Your task to perform on an android device: turn on the 24-hour format for clock Image 0: 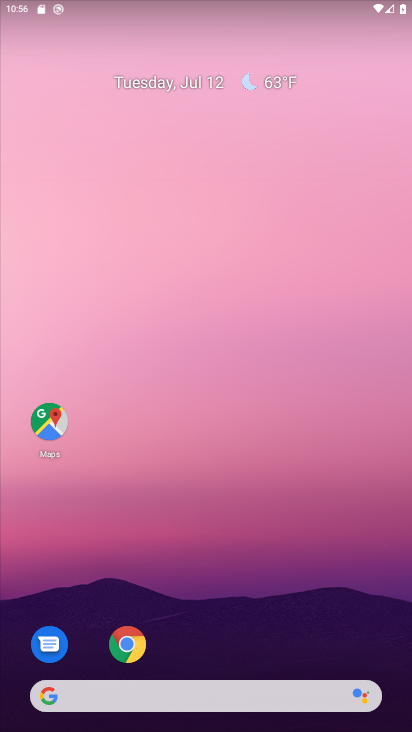
Step 0: drag from (262, 640) to (127, 82)
Your task to perform on an android device: turn on the 24-hour format for clock Image 1: 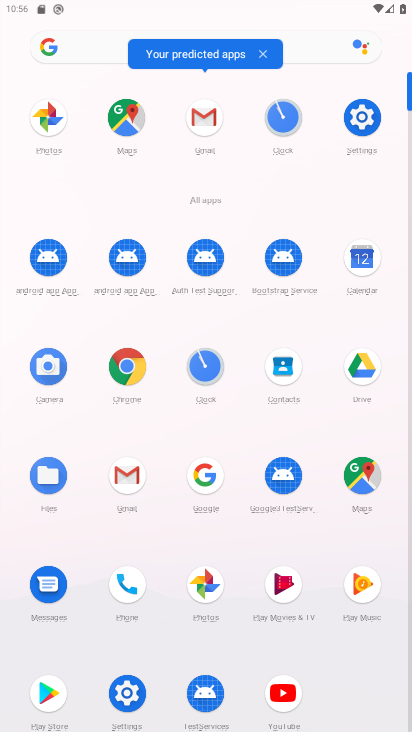
Step 1: click (290, 116)
Your task to perform on an android device: turn on the 24-hour format for clock Image 2: 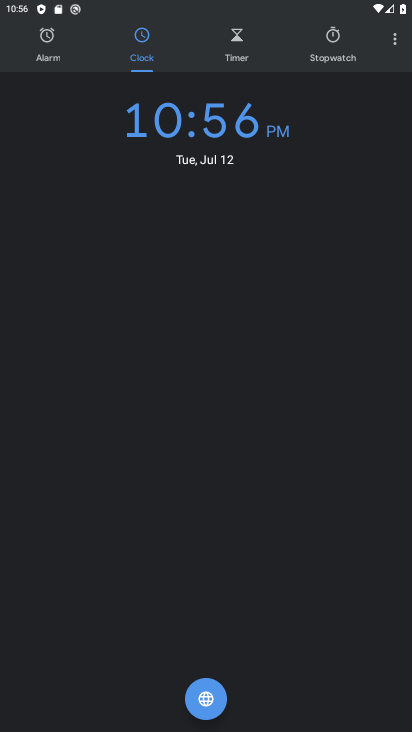
Step 2: click (390, 45)
Your task to perform on an android device: turn on the 24-hour format for clock Image 3: 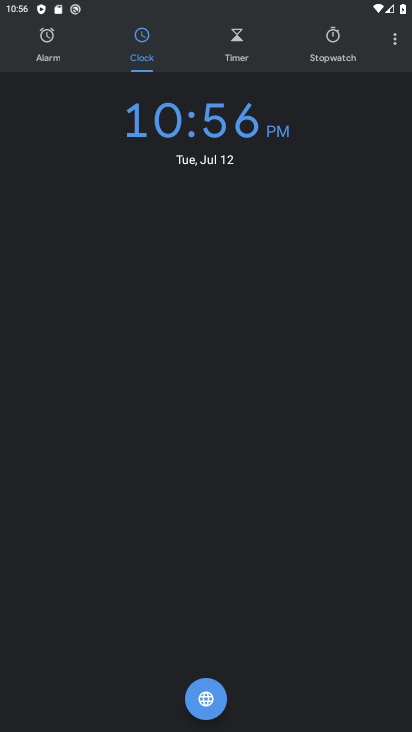
Step 3: click (397, 44)
Your task to perform on an android device: turn on the 24-hour format for clock Image 4: 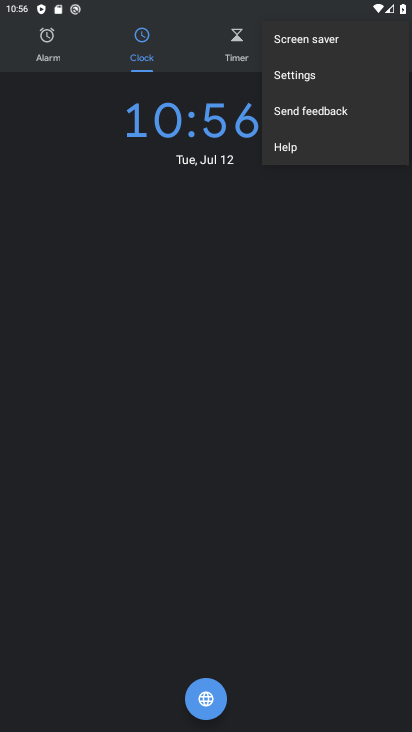
Step 4: click (342, 71)
Your task to perform on an android device: turn on the 24-hour format for clock Image 5: 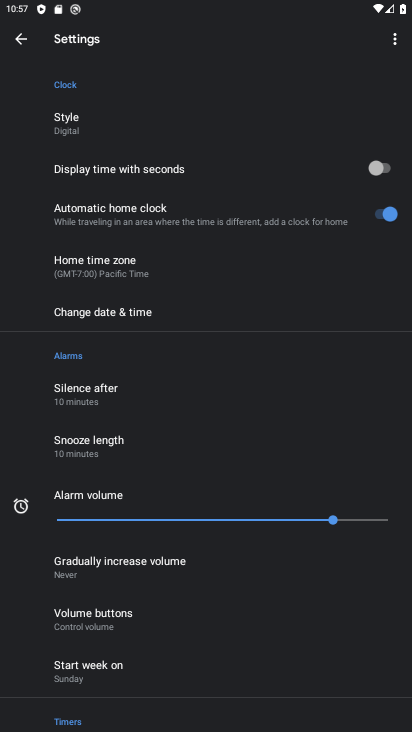
Step 5: click (141, 309)
Your task to perform on an android device: turn on the 24-hour format for clock Image 6: 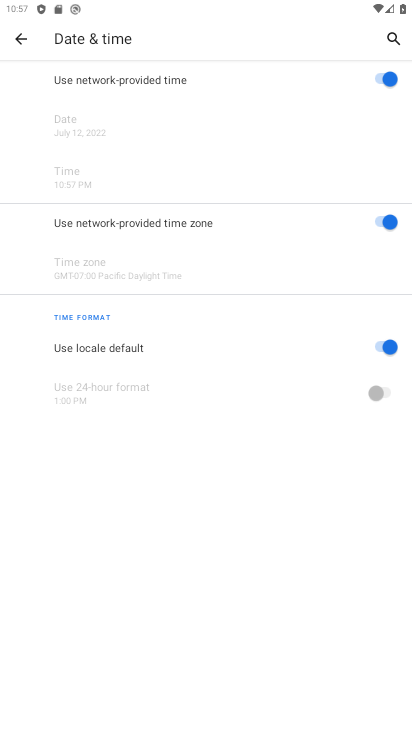
Step 6: click (382, 351)
Your task to perform on an android device: turn on the 24-hour format for clock Image 7: 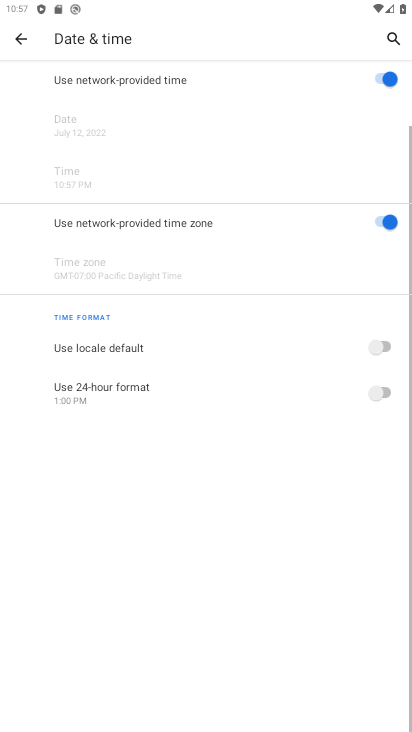
Step 7: click (381, 386)
Your task to perform on an android device: turn on the 24-hour format for clock Image 8: 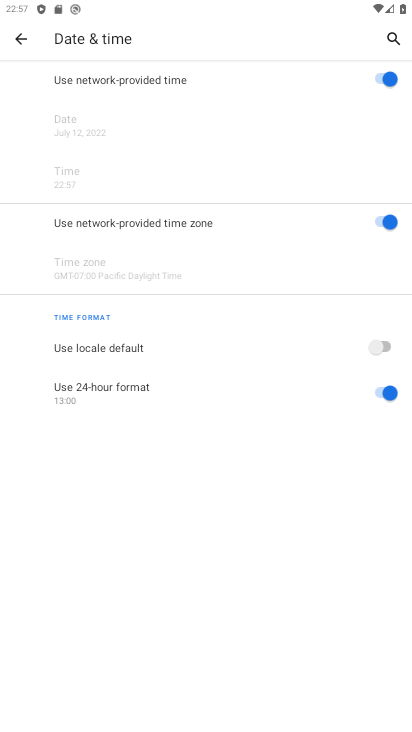
Step 8: task complete